Your task to perform on an android device: Go to location settings Image 0: 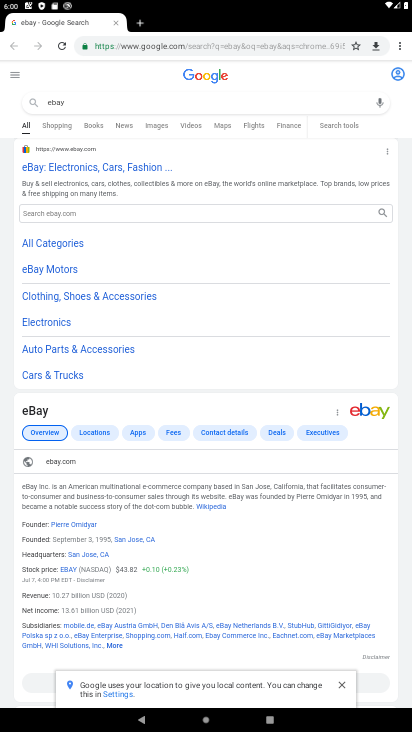
Step 0: press home button
Your task to perform on an android device: Go to location settings Image 1: 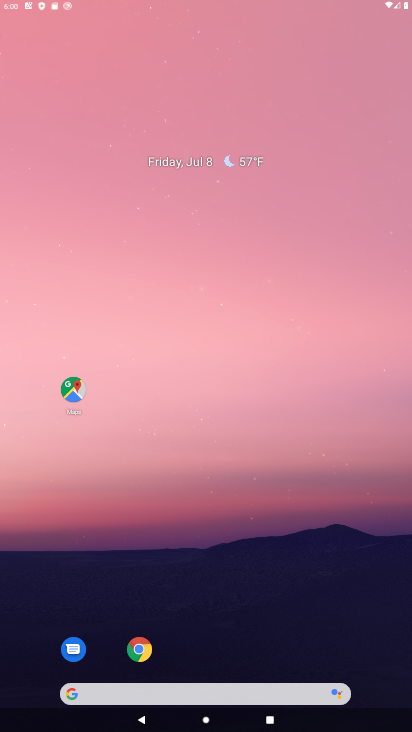
Step 1: drag from (296, 617) to (274, 101)
Your task to perform on an android device: Go to location settings Image 2: 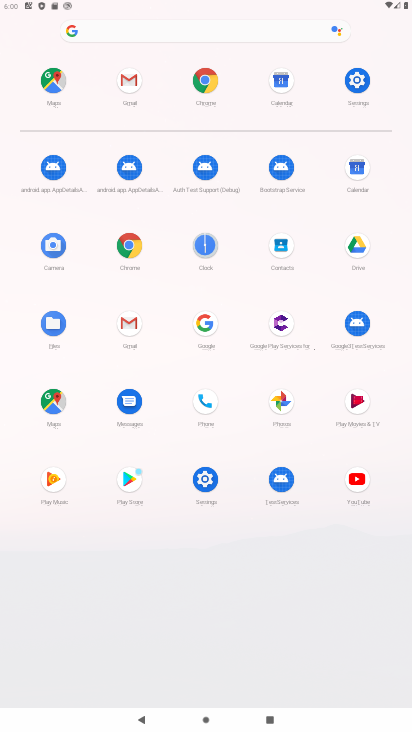
Step 2: click (364, 85)
Your task to perform on an android device: Go to location settings Image 3: 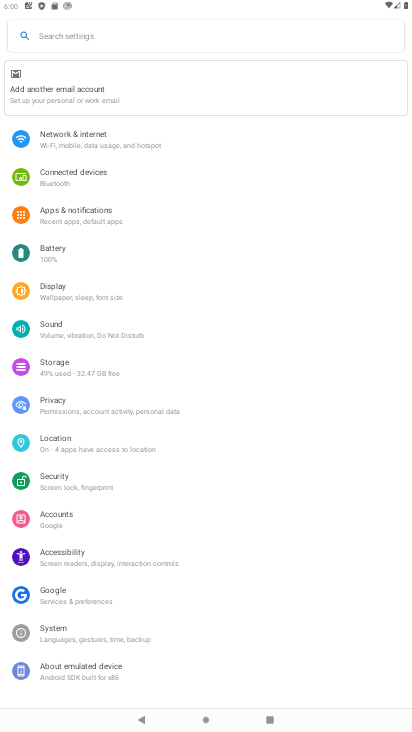
Step 3: click (65, 434)
Your task to perform on an android device: Go to location settings Image 4: 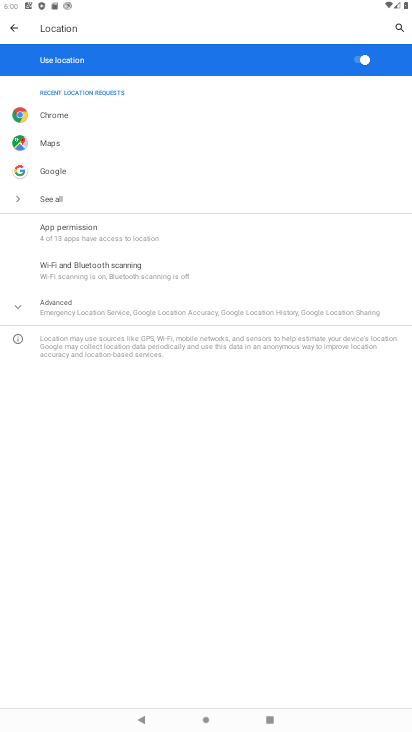
Step 4: task complete